Your task to perform on an android device: turn on notifications settings in the gmail app Image 0: 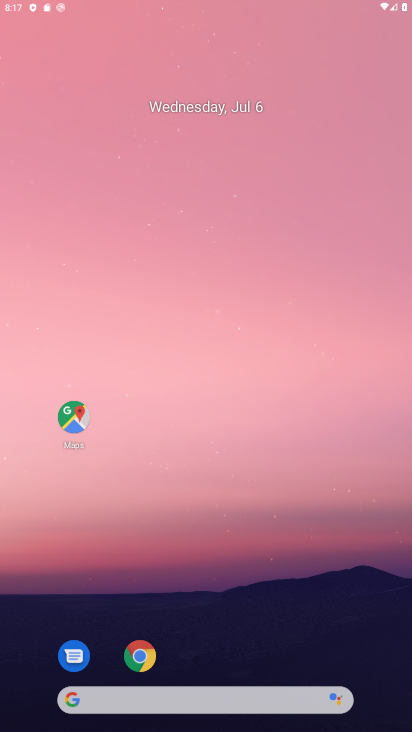
Step 0: drag from (232, 594) to (216, 73)
Your task to perform on an android device: turn on notifications settings in the gmail app Image 1: 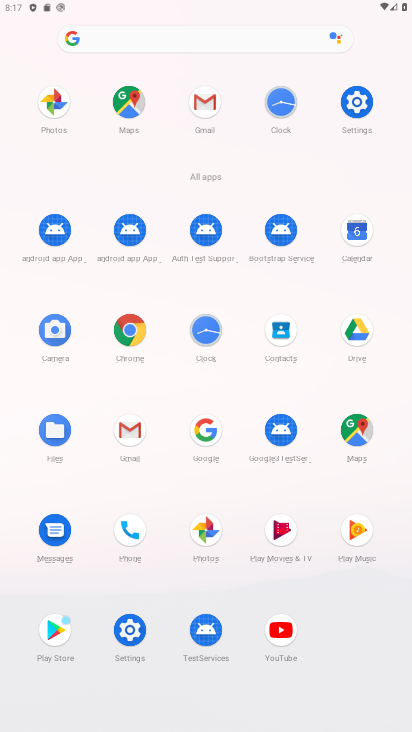
Step 1: click (205, 103)
Your task to perform on an android device: turn on notifications settings in the gmail app Image 2: 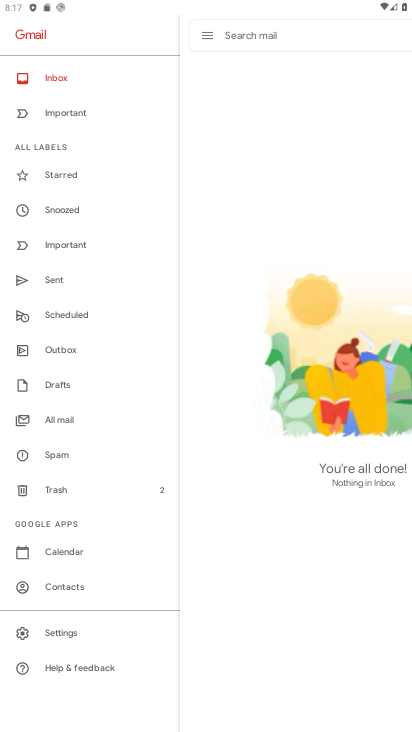
Step 2: click (45, 631)
Your task to perform on an android device: turn on notifications settings in the gmail app Image 3: 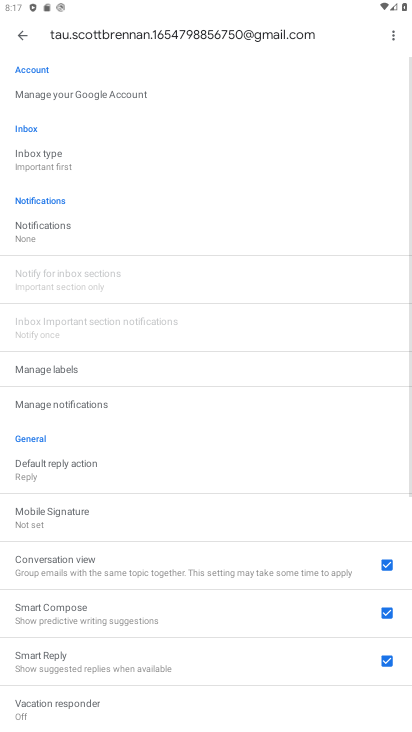
Step 3: click (57, 229)
Your task to perform on an android device: turn on notifications settings in the gmail app Image 4: 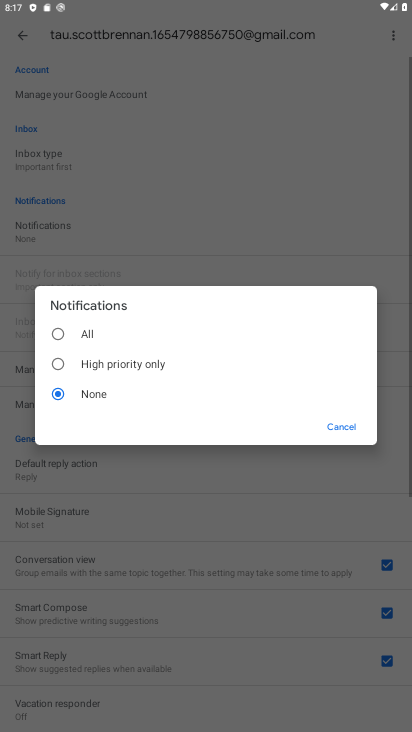
Step 4: click (80, 339)
Your task to perform on an android device: turn on notifications settings in the gmail app Image 5: 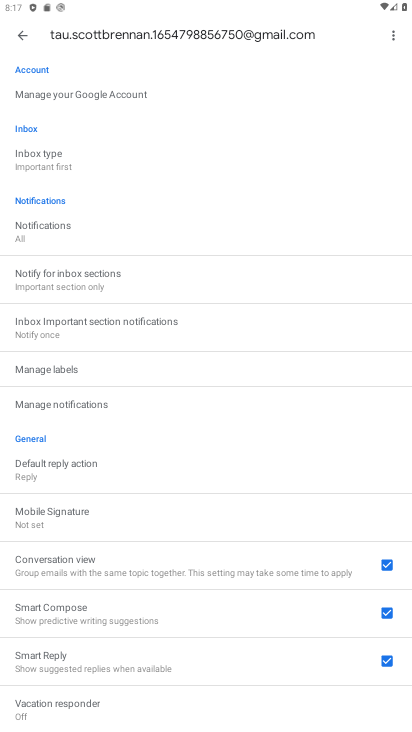
Step 5: task complete